Your task to perform on an android device: open sync settings in chrome Image 0: 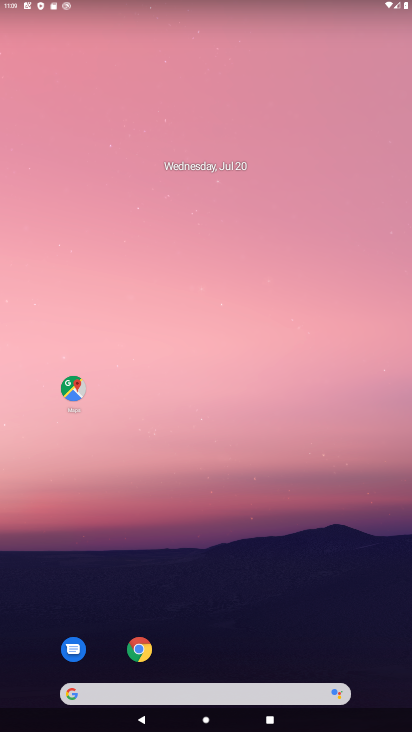
Step 0: click (148, 630)
Your task to perform on an android device: open sync settings in chrome Image 1: 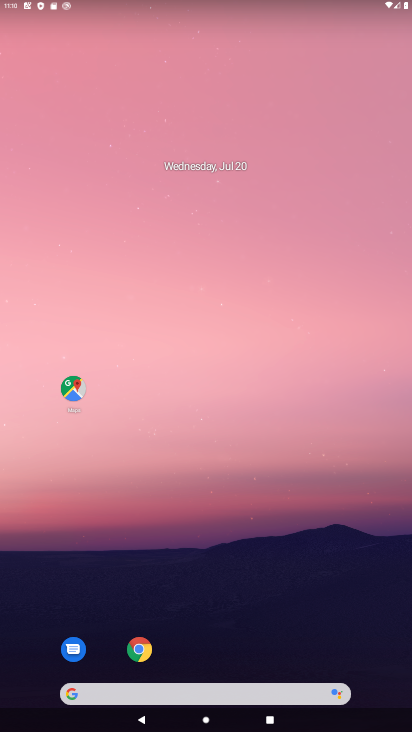
Step 1: click (145, 659)
Your task to perform on an android device: open sync settings in chrome Image 2: 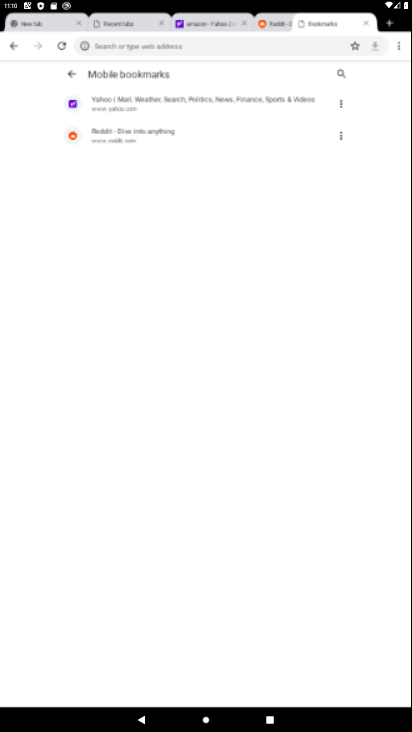
Step 2: click (402, 51)
Your task to perform on an android device: open sync settings in chrome Image 3: 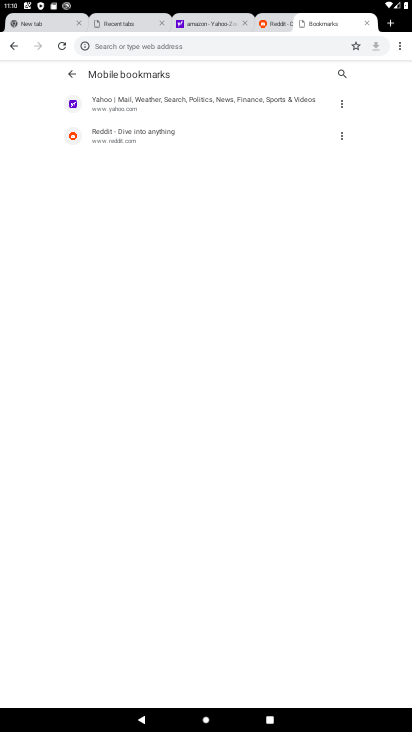
Step 3: click (396, 48)
Your task to perform on an android device: open sync settings in chrome Image 4: 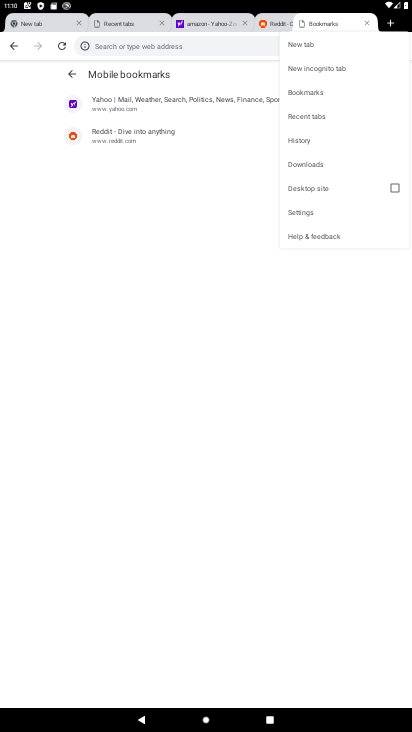
Step 4: click (313, 215)
Your task to perform on an android device: open sync settings in chrome Image 5: 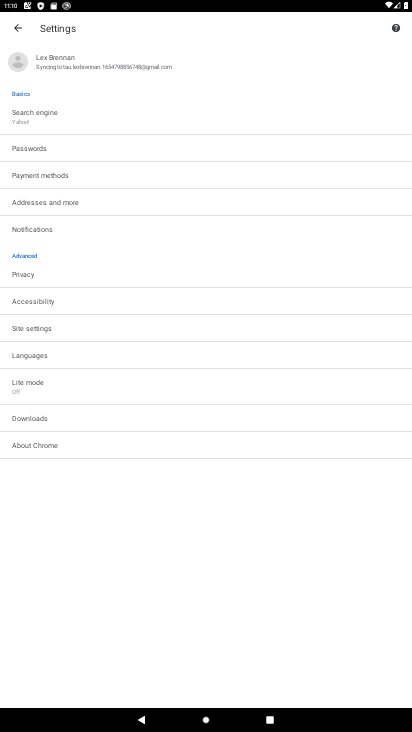
Step 5: click (264, 67)
Your task to perform on an android device: open sync settings in chrome Image 6: 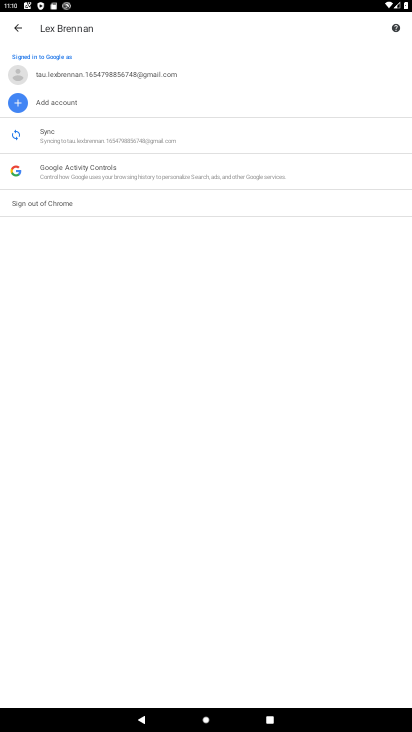
Step 6: task complete